Your task to perform on an android device: Is it going to rain tomorrow? Image 0: 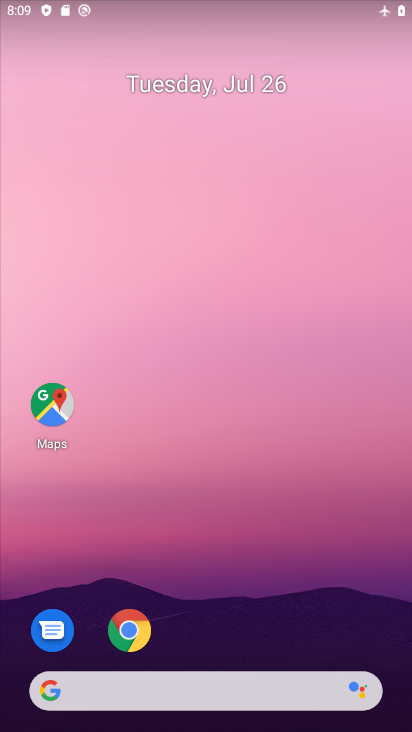
Step 0: drag from (204, 575) to (143, 0)
Your task to perform on an android device: Is it going to rain tomorrow? Image 1: 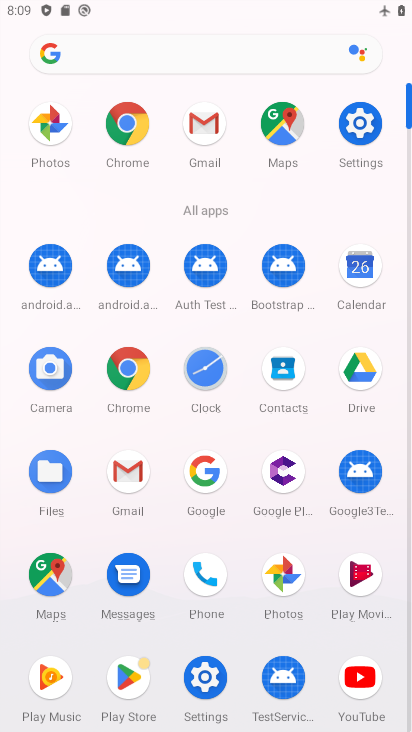
Step 1: click (202, 470)
Your task to perform on an android device: Is it going to rain tomorrow? Image 2: 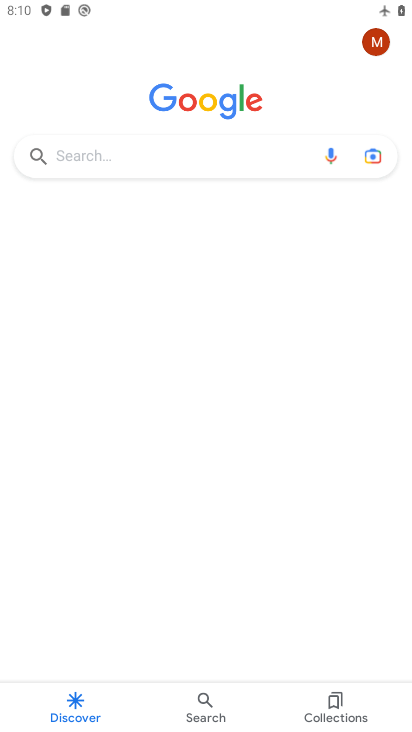
Step 2: click (117, 161)
Your task to perform on an android device: Is it going to rain tomorrow? Image 3: 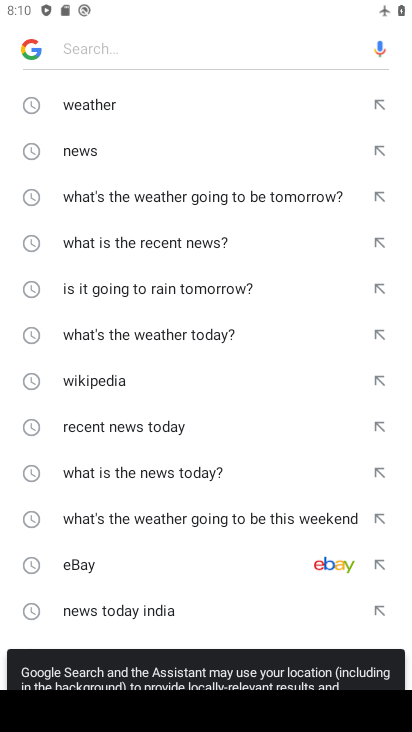
Step 3: click (91, 101)
Your task to perform on an android device: Is it going to rain tomorrow? Image 4: 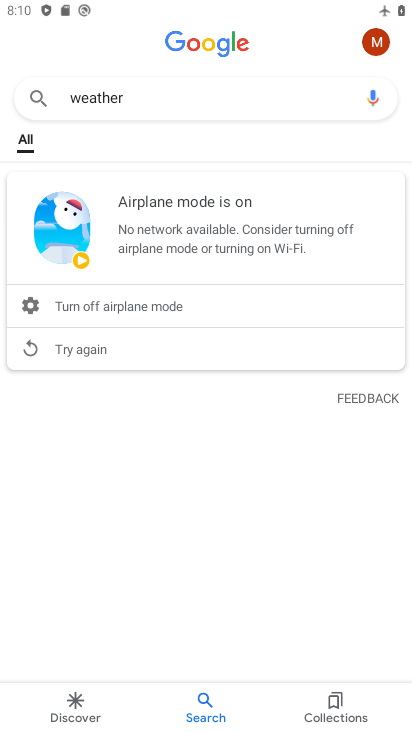
Step 4: task complete